Your task to perform on an android device: turn off translation in the chrome app Image 0: 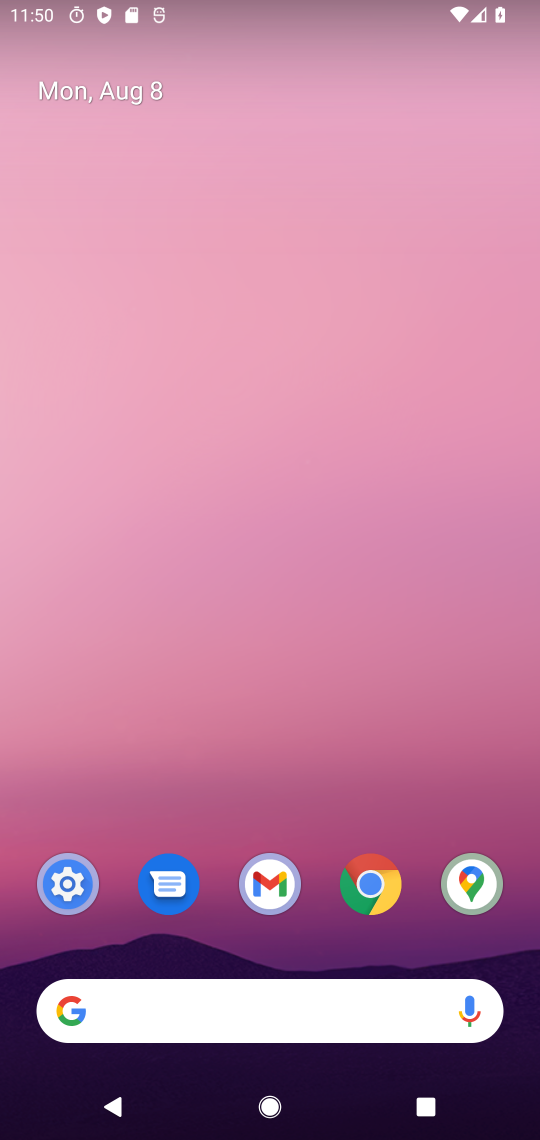
Step 0: click (366, 876)
Your task to perform on an android device: turn off translation in the chrome app Image 1: 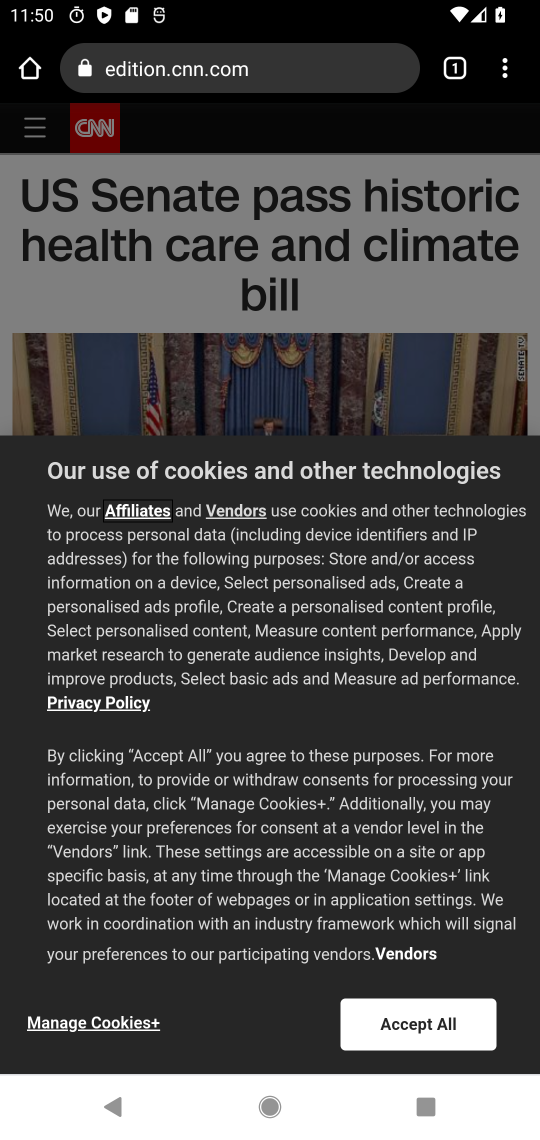
Step 1: click (513, 68)
Your task to perform on an android device: turn off translation in the chrome app Image 2: 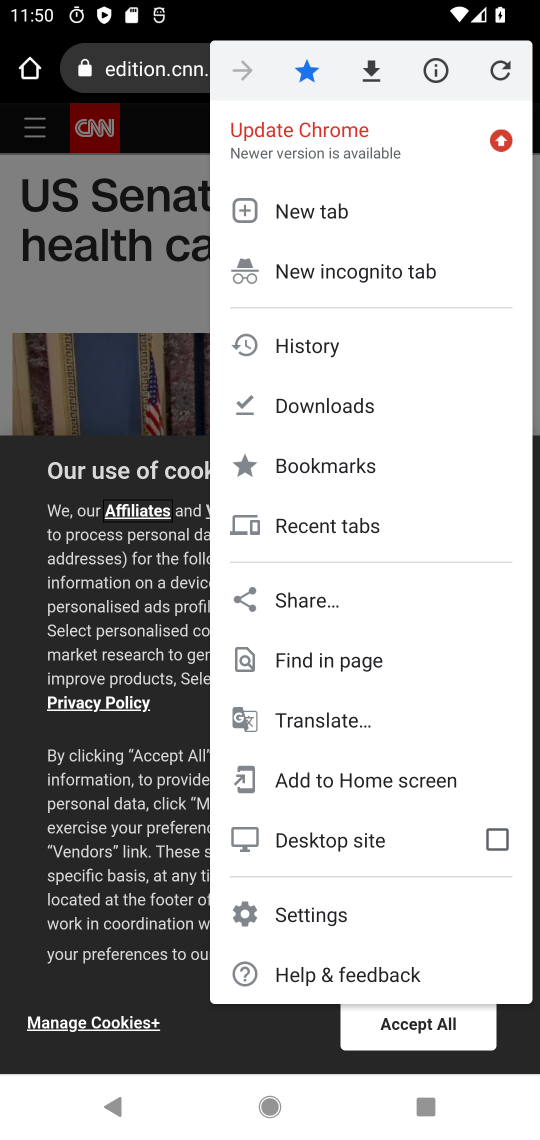
Step 2: click (298, 903)
Your task to perform on an android device: turn off translation in the chrome app Image 3: 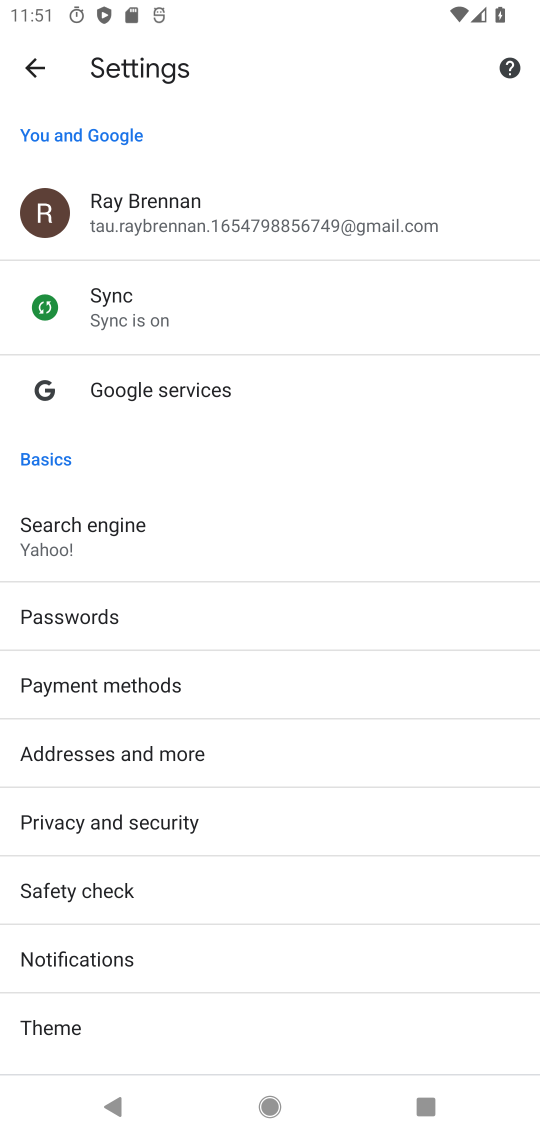
Step 3: drag from (177, 1001) to (188, 411)
Your task to perform on an android device: turn off translation in the chrome app Image 4: 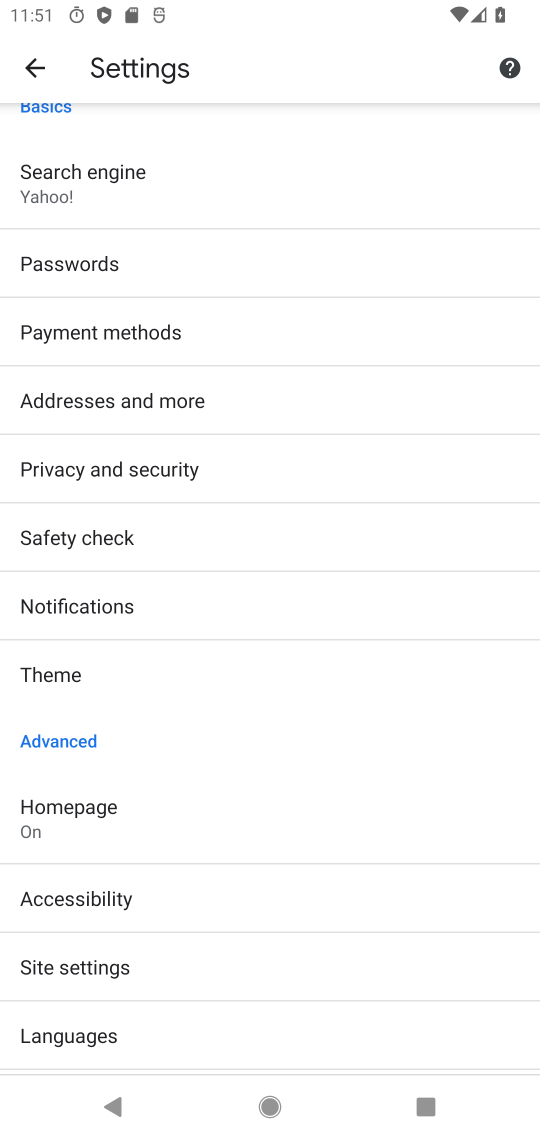
Step 4: click (72, 1031)
Your task to perform on an android device: turn off translation in the chrome app Image 5: 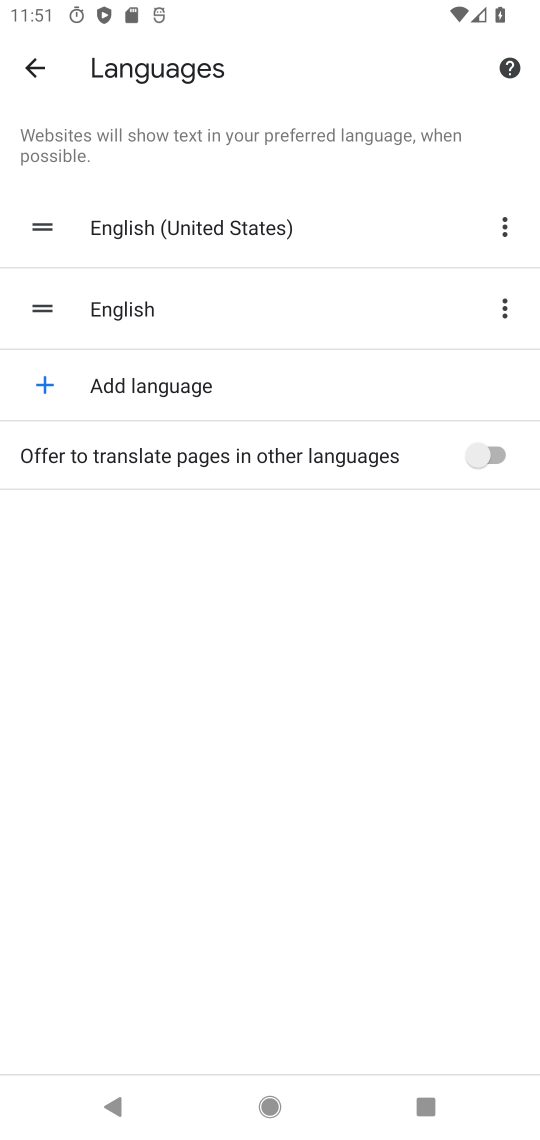
Step 5: task complete